Your task to perform on an android device: turn off notifications settings in the gmail app Image 0: 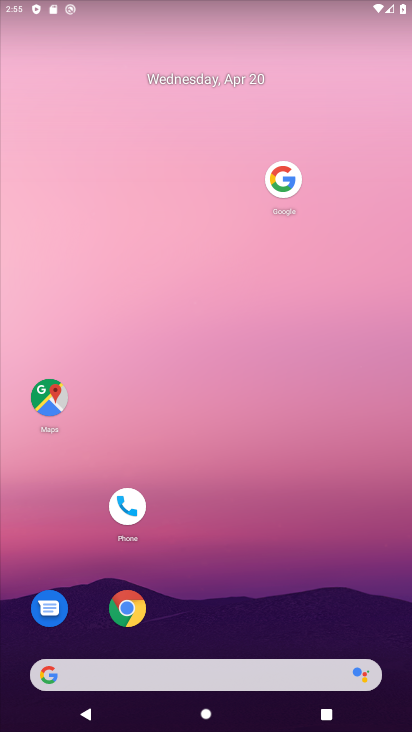
Step 0: drag from (323, 633) to (288, 139)
Your task to perform on an android device: turn off notifications settings in the gmail app Image 1: 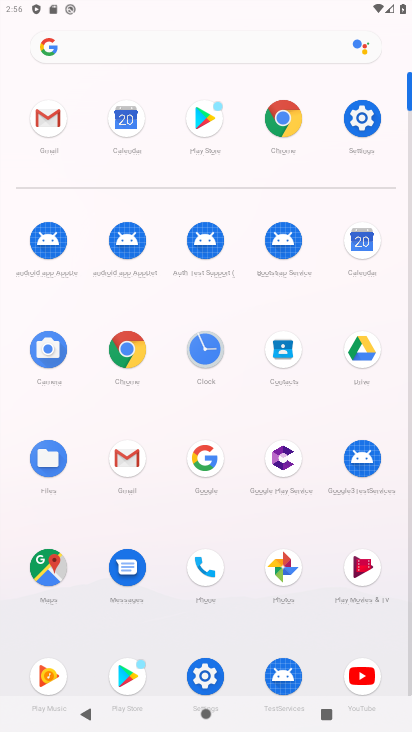
Step 1: click (50, 111)
Your task to perform on an android device: turn off notifications settings in the gmail app Image 2: 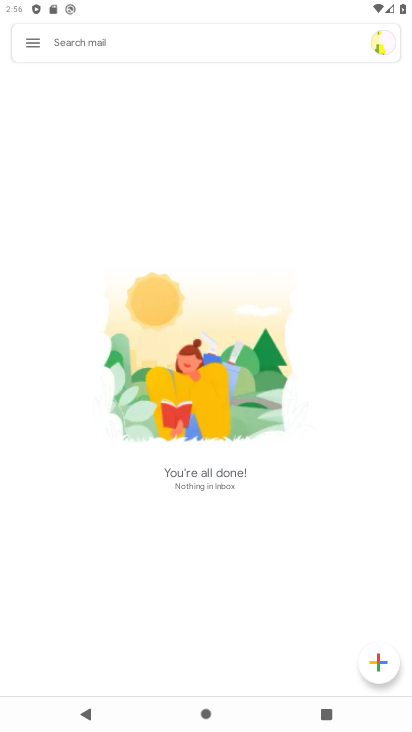
Step 2: click (32, 37)
Your task to perform on an android device: turn off notifications settings in the gmail app Image 3: 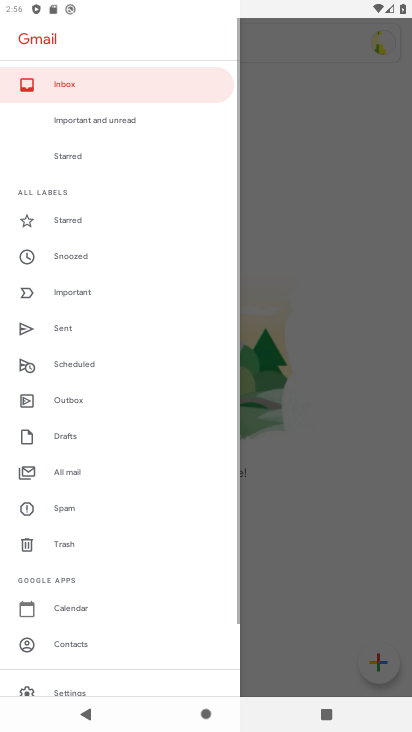
Step 3: drag from (85, 607) to (192, 84)
Your task to perform on an android device: turn off notifications settings in the gmail app Image 4: 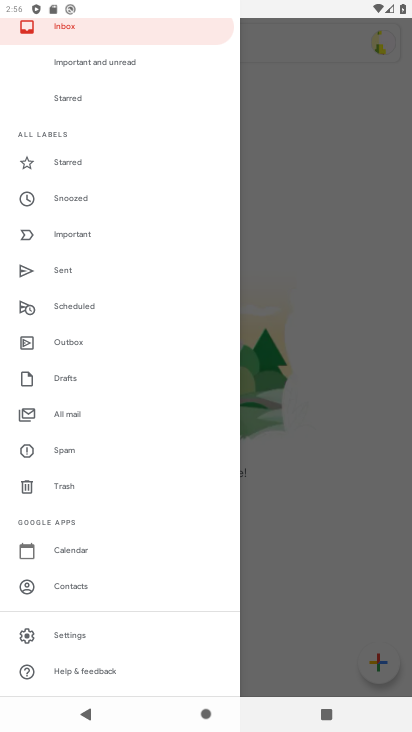
Step 4: click (59, 636)
Your task to perform on an android device: turn off notifications settings in the gmail app Image 5: 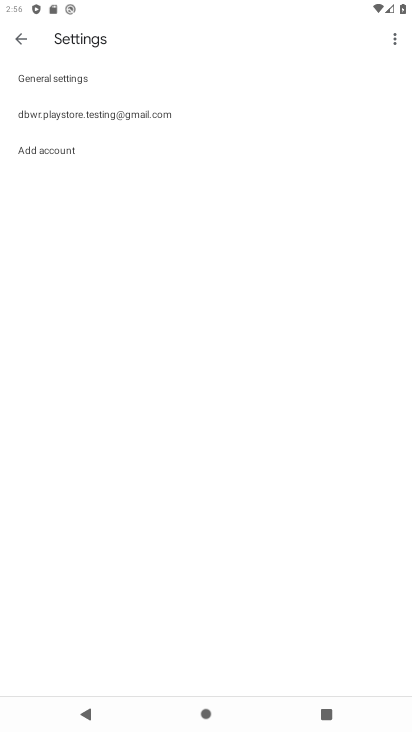
Step 5: click (139, 119)
Your task to perform on an android device: turn off notifications settings in the gmail app Image 6: 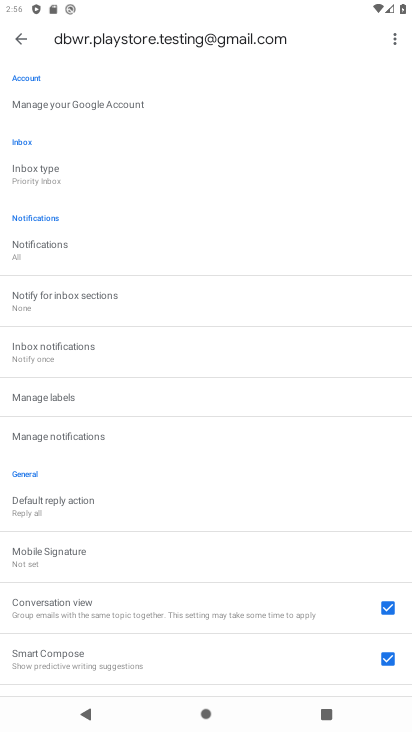
Step 6: click (126, 436)
Your task to perform on an android device: turn off notifications settings in the gmail app Image 7: 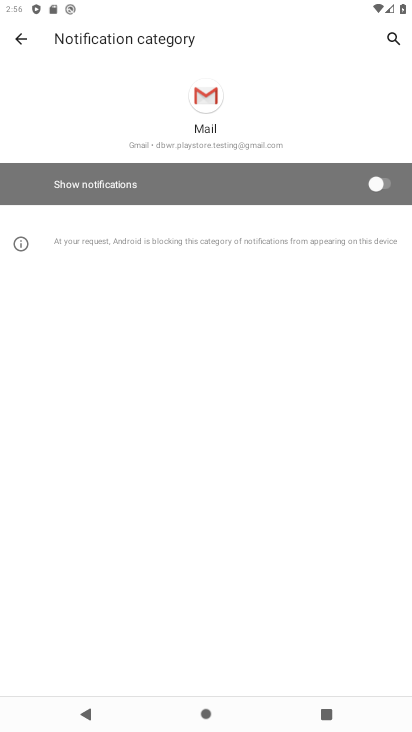
Step 7: task complete